Your task to perform on an android device: manage bookmarks in the chrome app Image 0: 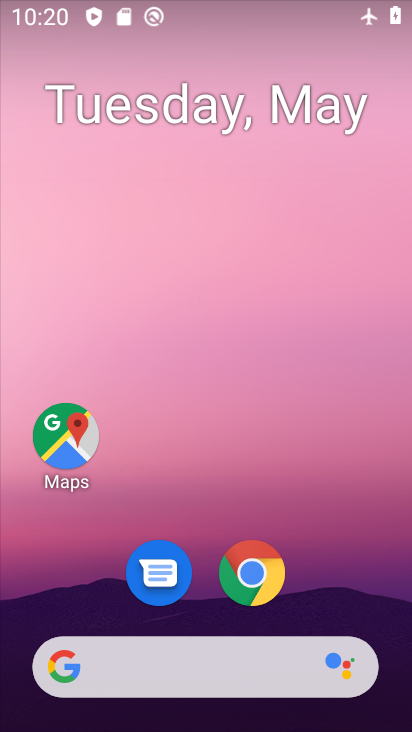
Step 0: drag from (323, 560) to (338, 115)
Your task to perform on an android device: manage bookmarks in the chrome app Image 1: 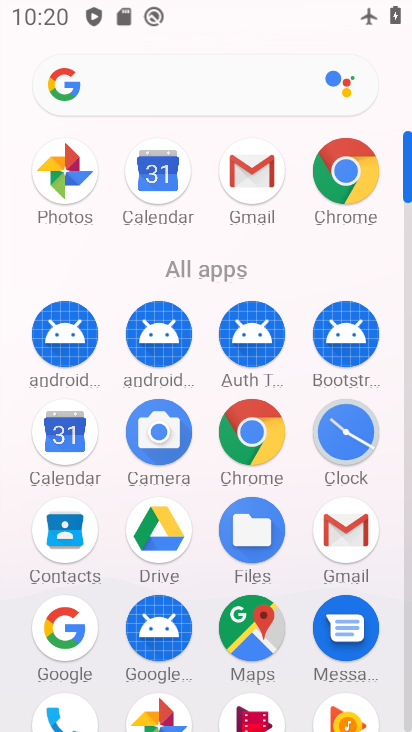
Step 1: drag from (359, 4) to (319, 390)
Your task to perform on an android device: manage bookmarks in the chrome app Image 2: 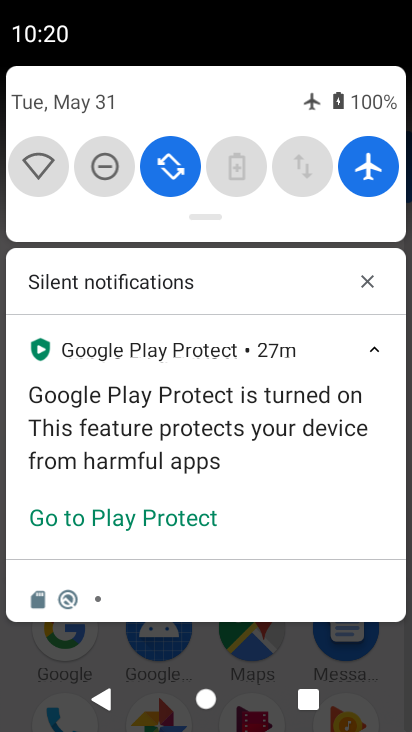
Step 2: click (363, 162)
Your task to perform on an android device: manage bookmarks in the chrome app Image 3: 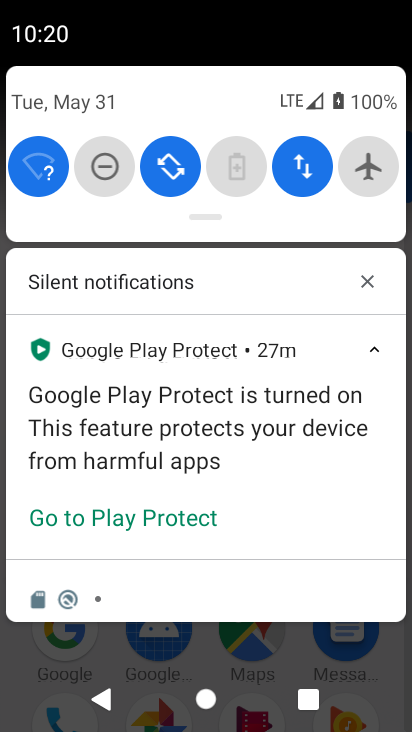
Step 3: click (393, 661)
Your task to perform on an android device: manage bookmarks in the chrome app Image 4: 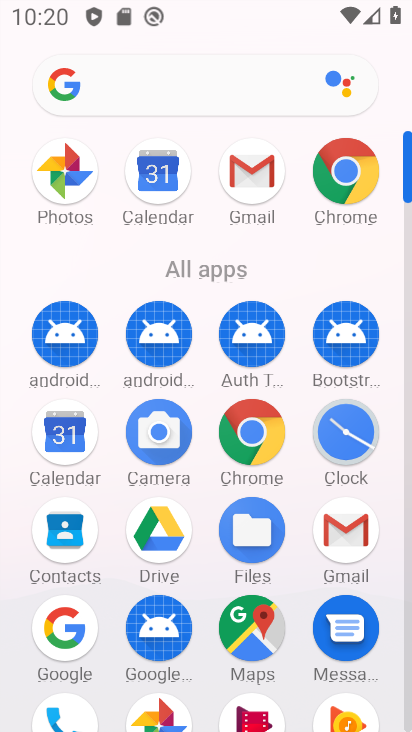
Step 4: click (263, 429)
Your task to perform on an android device: manage bookmarks in the chrome app Image 5: 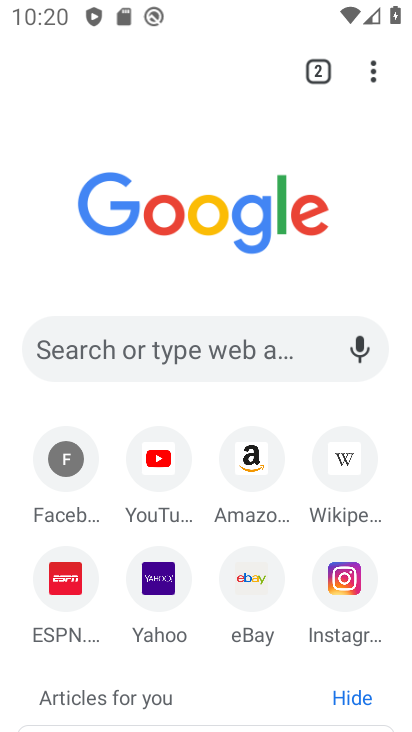
Step 5: drag from (374, 66) to (134, 264)
Your task to perform on an android device: manage bookmarks in the chrome app Image 6: 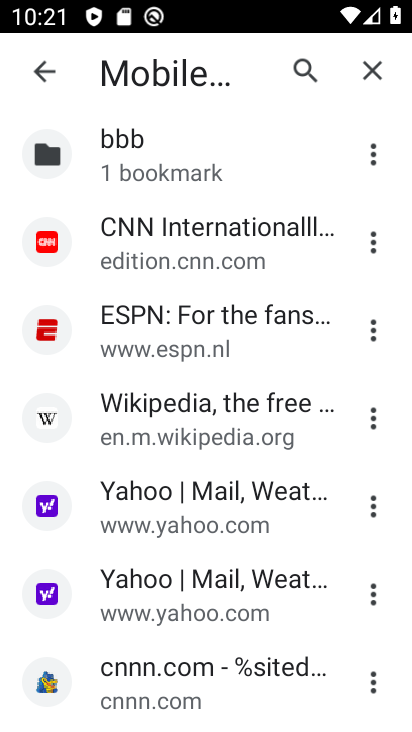
Step 6: click (375, 237)
Your task to perform on an android device: manage bookmarks in the chrome app Image 7: 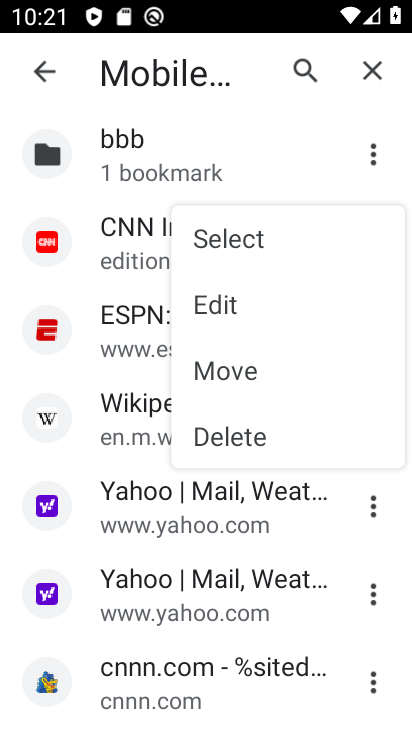
Step 7: click (220, 426)
Your task to perform on an android device: manage bookmarks in the chrome app Image 8: 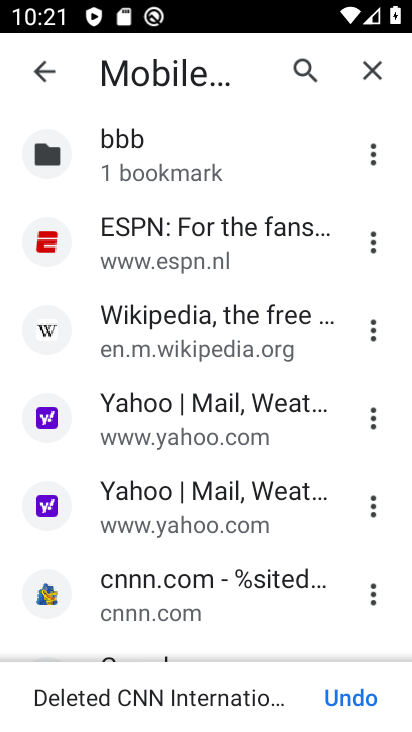
Step 8: task complete